Your task to perform on an android device: toggle priority inbox in the gmail app Image 0: 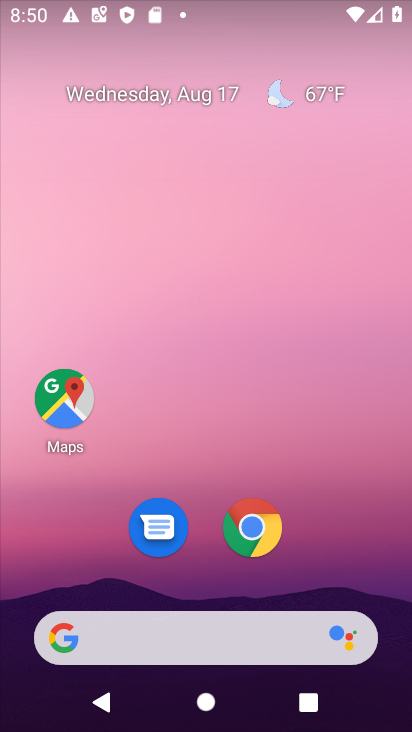
Step 0: drag from (201, 601) to (233, 110)
Your task to perform on an android device: toggle priority inbox in the gmail app Image 1: 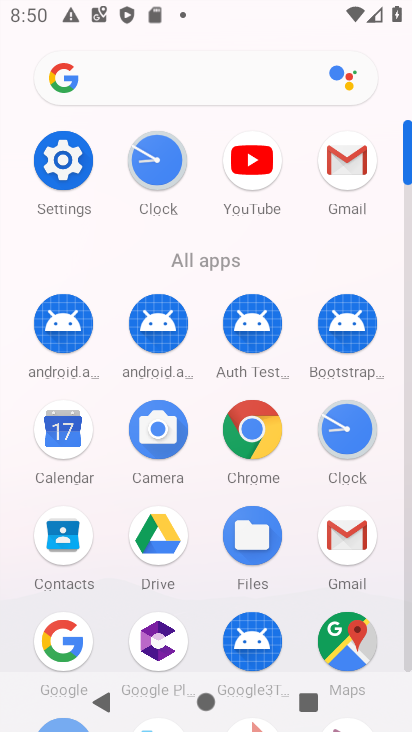
Step 1: click (359, 166)
Your task to perform on an android device: toggle priority inbox in the gmail app Image 2: 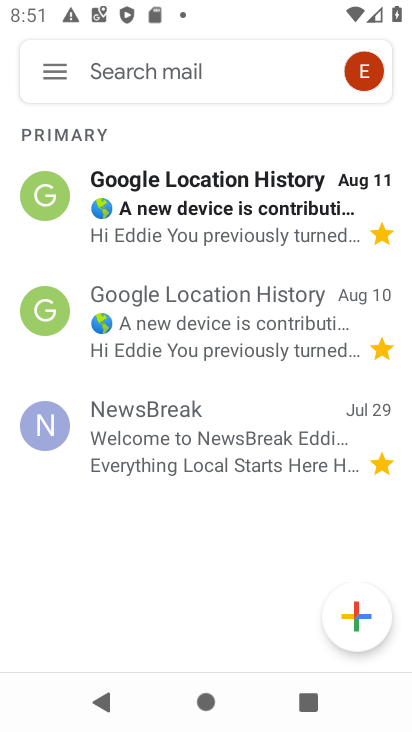
Step 2: click (48, 190)
Your task to perform on an android device: toggle priority inbox in the gmail app Image 3: 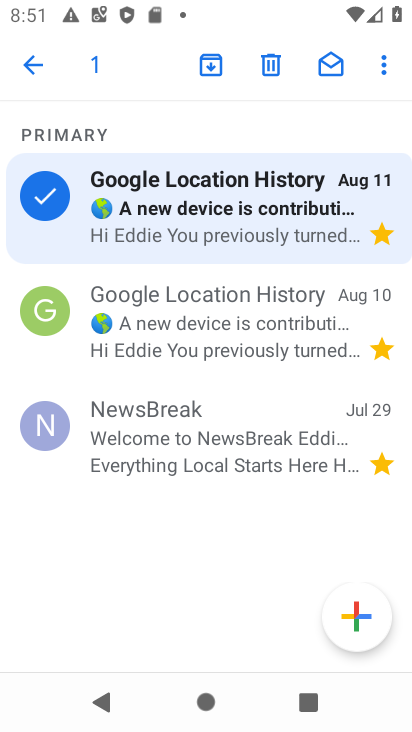
Step 3: click (388, 58)
Your task to perform on an android device: toggle priority inbox in the gmail app Image 4: 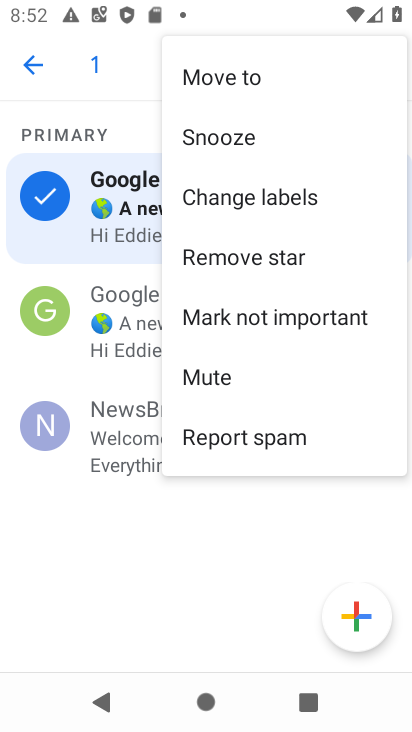
Step 4: click (31, 76)
Your task to perform on an android device: toggle priority inbox in the gmail app Image 5: 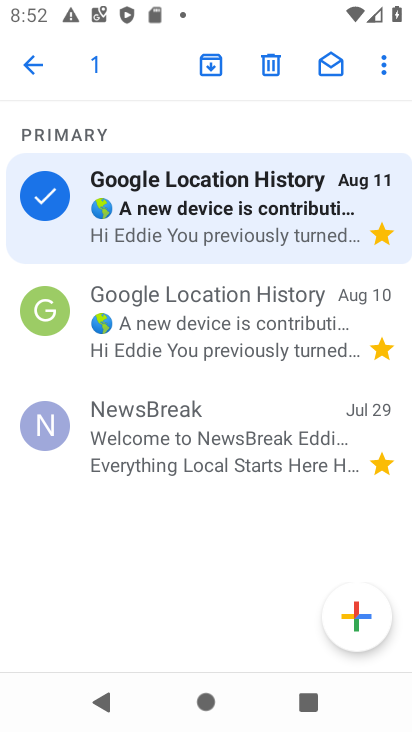
Step 5: click (31, 76)
Your task to perform on an android device: toggle priority inbox in the gmail app Image 6: 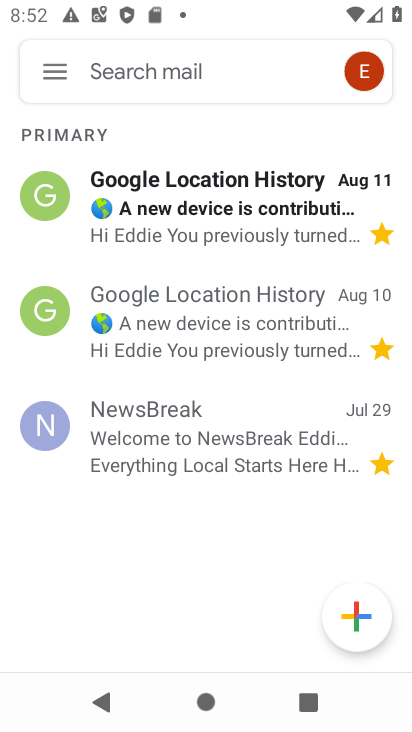
Step 6: click (48, 79)
Your task to perform on an android device: toggle priority inbox in the gmail app Image 7: 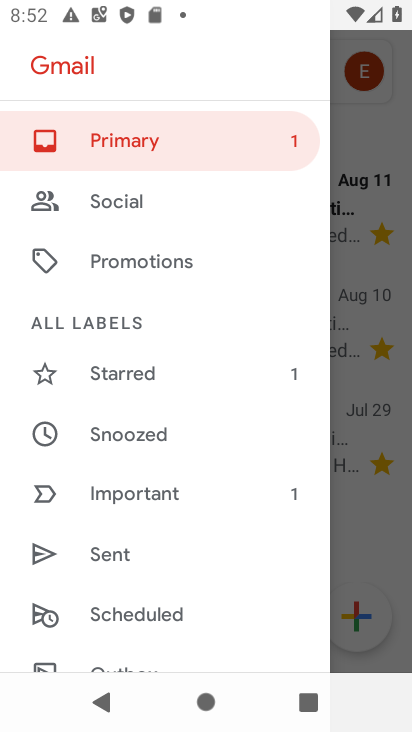
Step 7: drag from (127, 639) to (258, 190)
Your task to perform on an android device: toggle priority inbox in the gmail app Image 8: 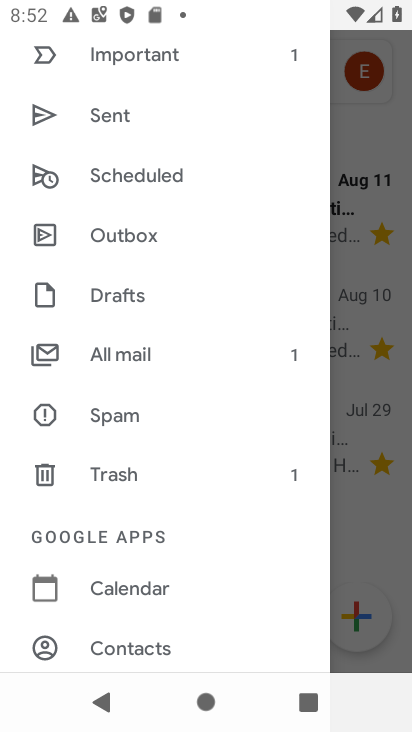
Step 8: drag from (209, 652) to (200, 276)
Your task to perform on an android device: toggle priority inbox in the gmail app Image 9: 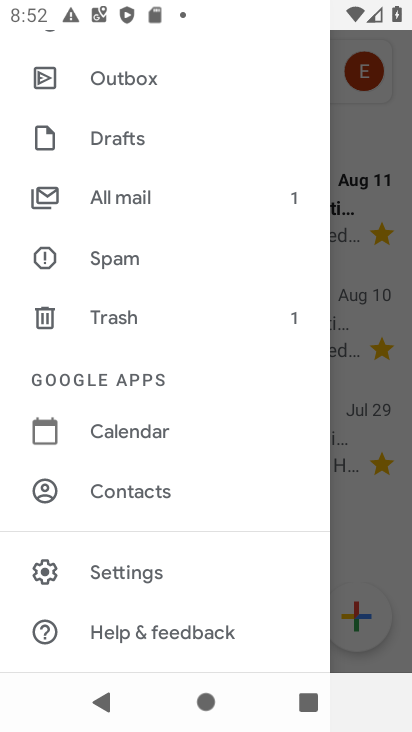
Step 9: click (208, 579)
Your task to perform on an android device: toggle priority inbox in the gmail app Image 10: 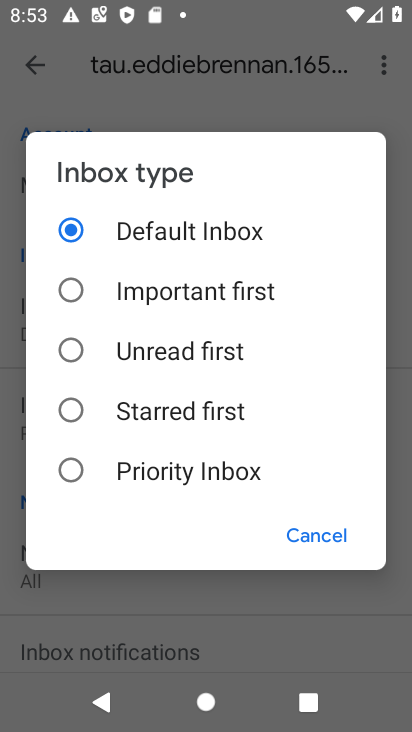
Step 10: click (182, 429)
Your task to perform on an android device: toggle priority inbox in the gmail app Image 11: 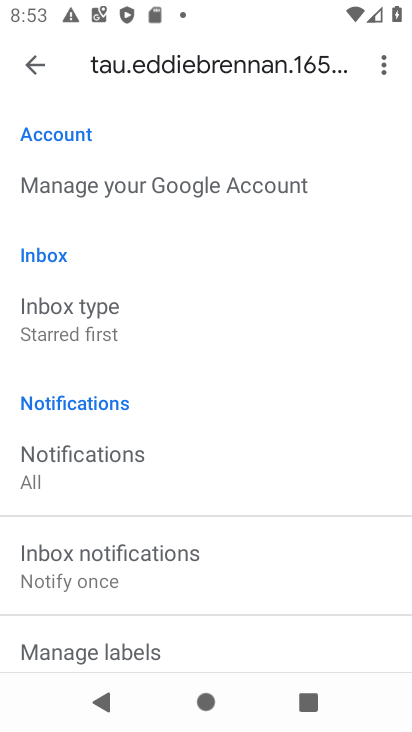
Step 11: task complete